Your task to perform on an android device: Open Wikipedia Image 0: 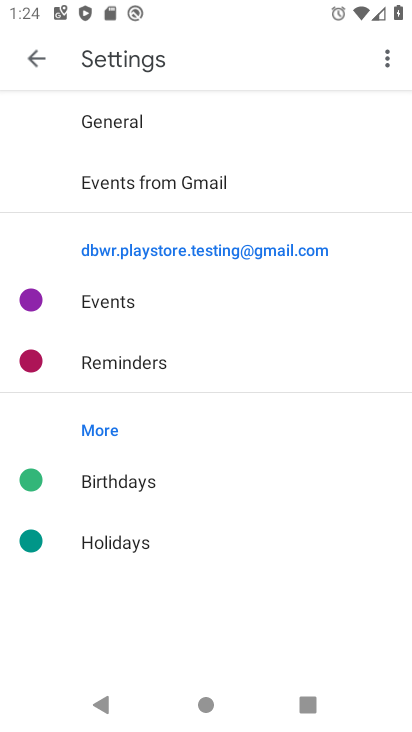
Step 0: press home button
Your task to perform on an android device: Open Wikipedia Image 1: 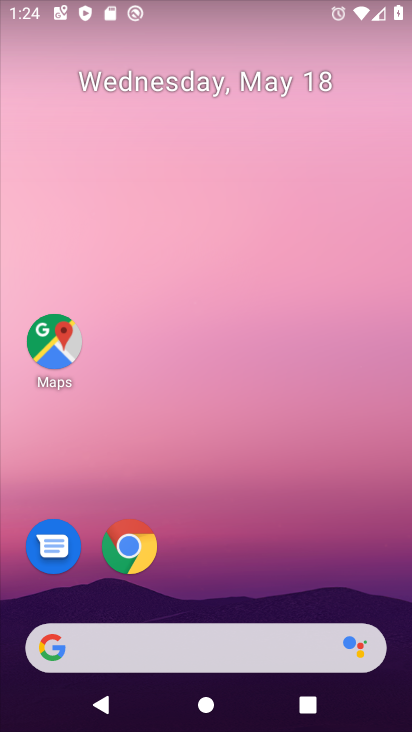
Step 1: drag from (180, 654) to (209, 162)
Your task to perform on an android device: Open Wikipedia Image 2: 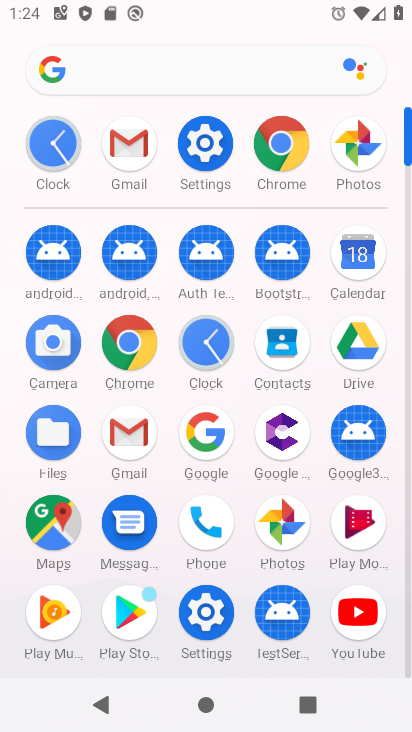
Step 2: click (220, 155)
Your task to perform on an android device: Open Wikipedia Image 3: 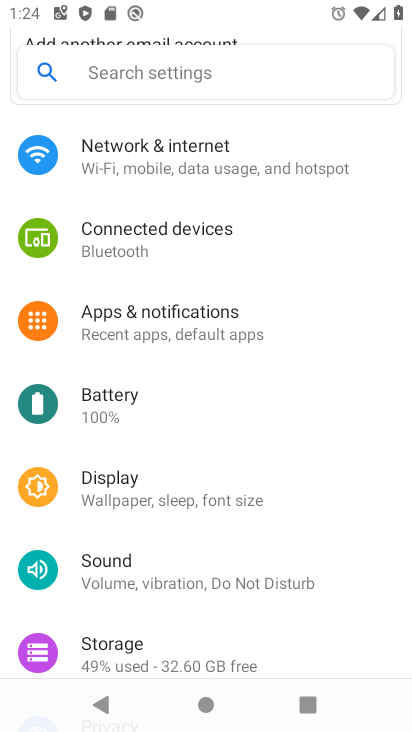
Step 3: drag from (221, 159) to (202, 492)
Your task to perform on an android device: Open Wikipedia Image 4: 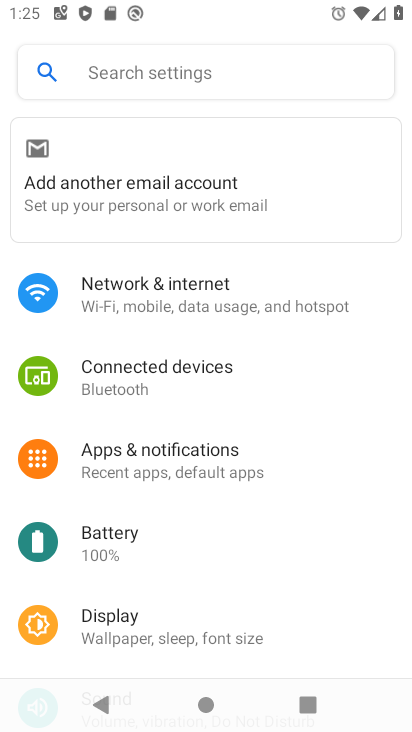
Step 4: click (252, 313)
Your task to perform on an android device: Open Wikipedia Image 5: 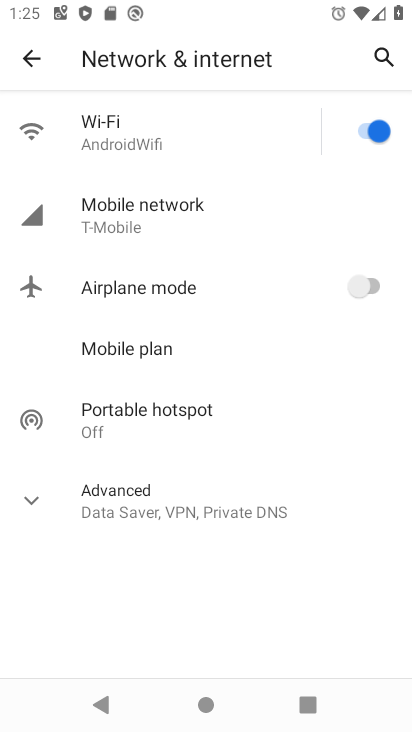
Step 5: click (180, 137)
Your task to perform on an android device: Open Wikipedia Image 6: 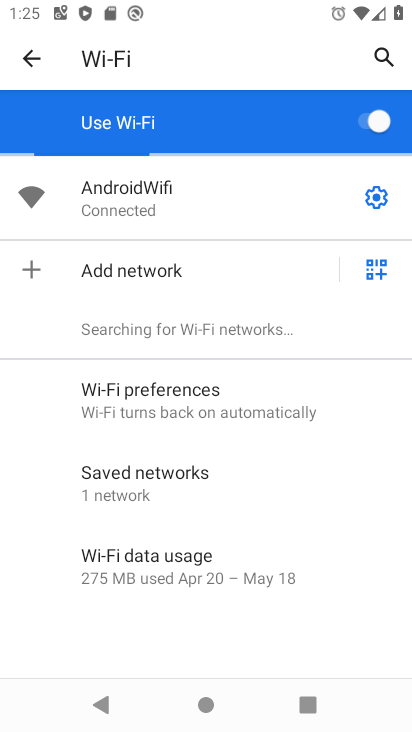
Step 6: task complete